Your task to perform on an android device: turn on data saver in the chrome app Image 0: 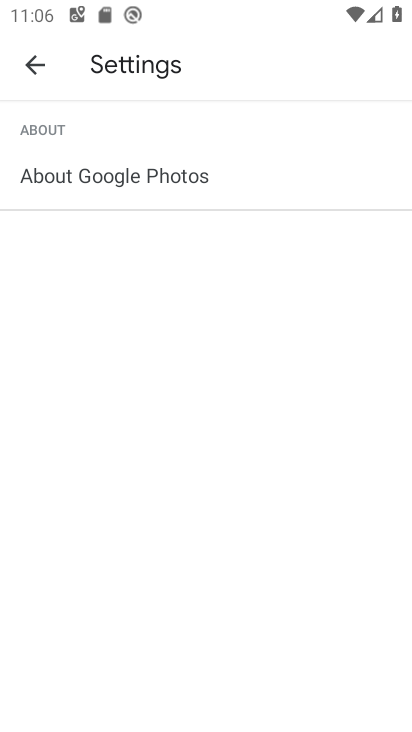
Step 0: press home button
Your task to perform on an android device: turn on data saver in the chrome app Image 1: 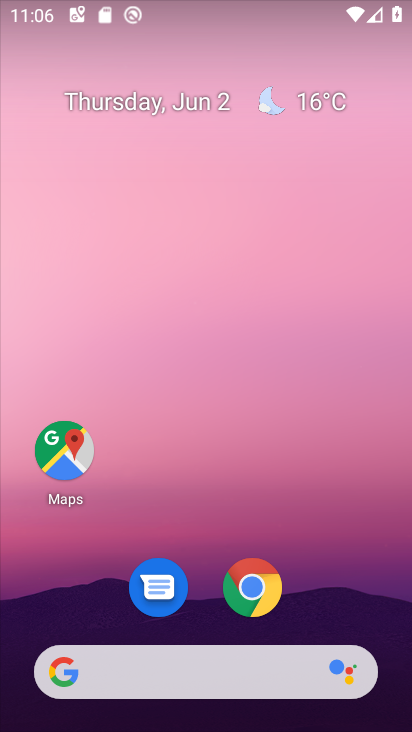
Step 1: click (262, 586)
Your task to perform on an android device: turn on data saver in the chrome app Image 2: 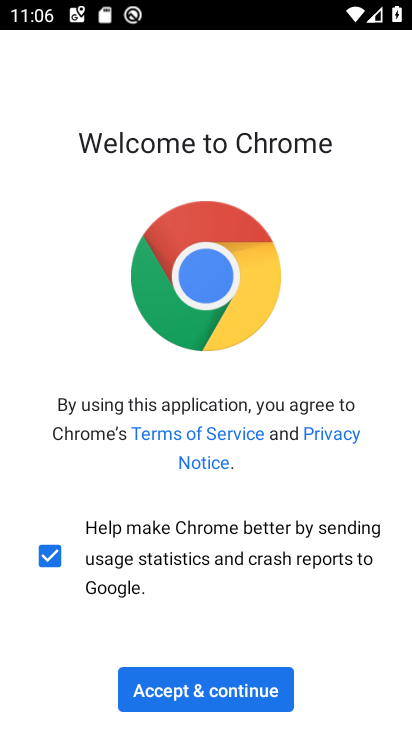
Step 2: click (256, 683)
Your task to perform on an android device: turn on data saver in the chrome app Image 3: 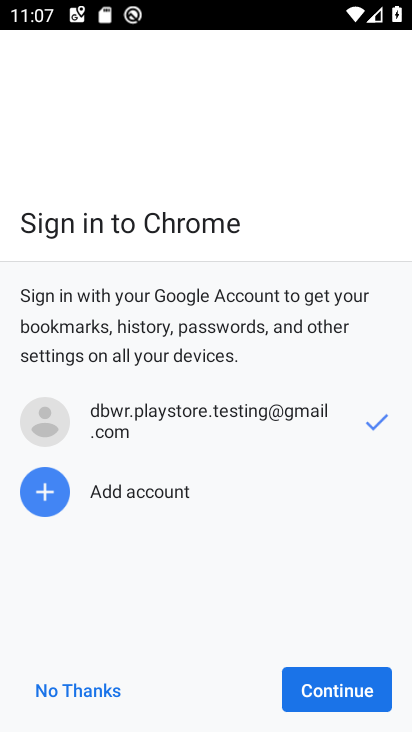
Step 3: click (305, 683)
Your task to perform on an android device: turn on data saver in the chrome app Image 4: 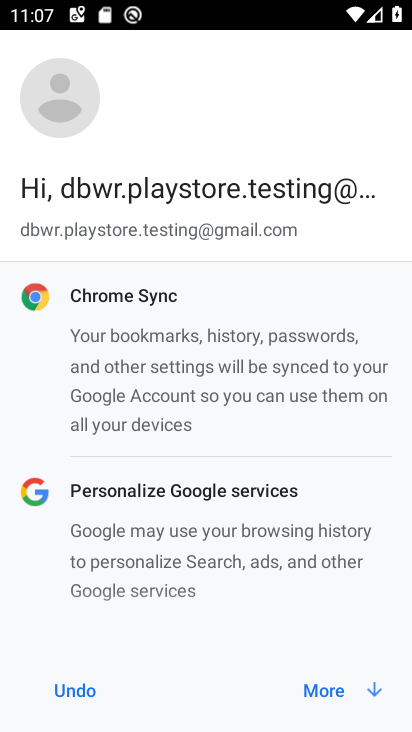
Step 4: click (320, 691)
Your task to perform on an android device: turn on data saver in the chrome app Image 5: 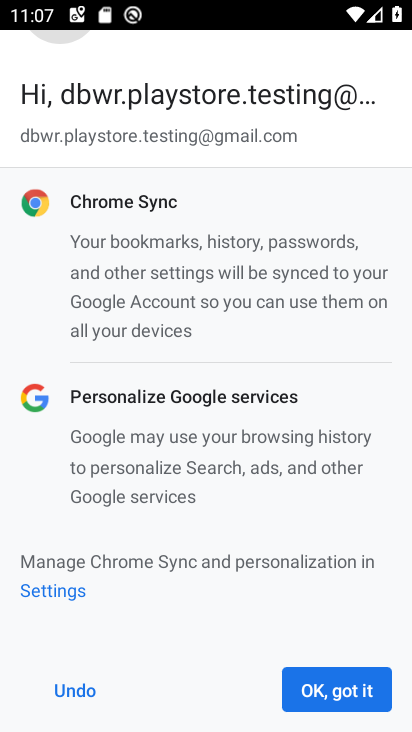
Step 5: click (320, 691)
Your task to perform on an android device: turn on data saver in the chrome app Image 6: 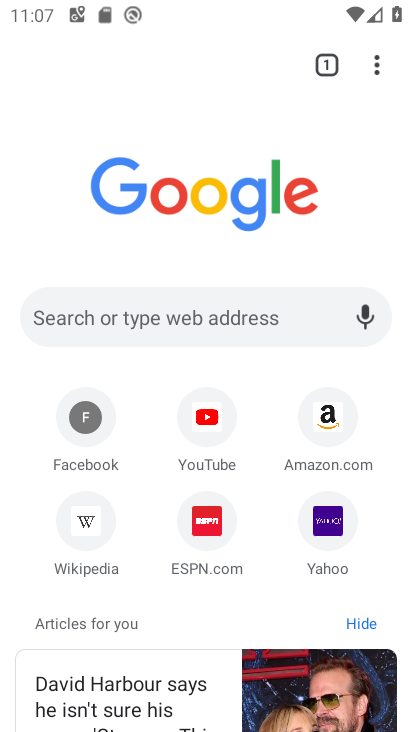
Step 6: click (378, 63)
Your task to perform on an android device: turn on data saver in the chrome app Image 7: 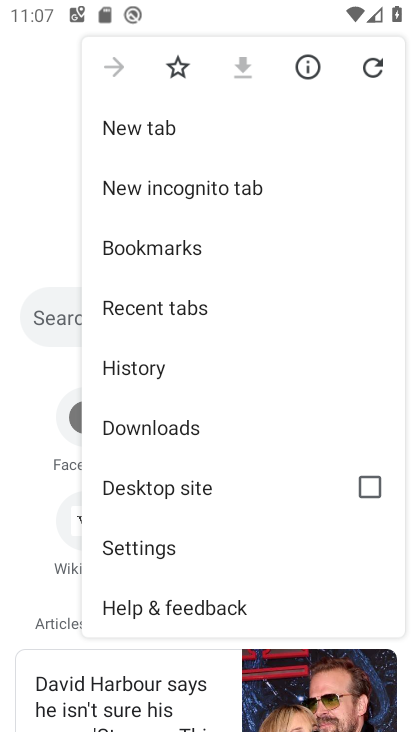
Step 7: click (195, 548)
Your task to perform on an android device: turn on data saver in the chrome app Image 8: 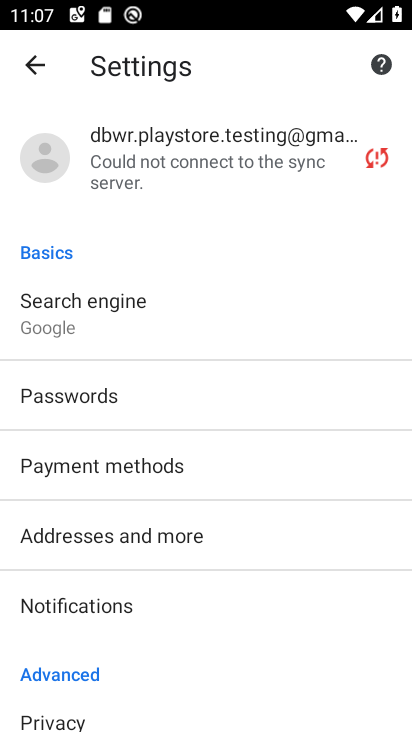
Step 8: drag from (243, 622) to (272, 337)
Your task to perform on an android device: turn on data saver in the chrome app Image 9: 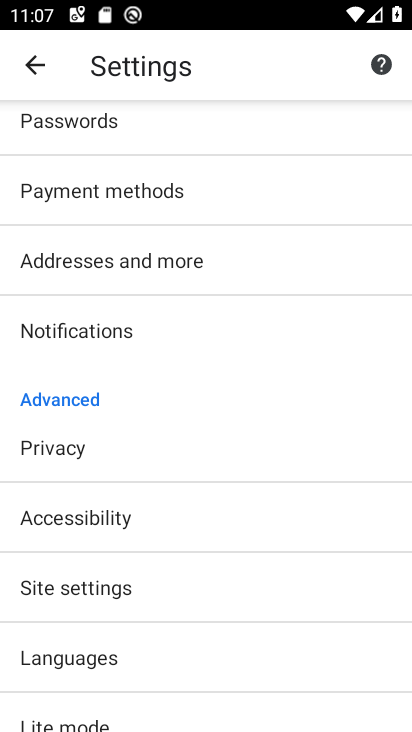
Step 9: drag from (237, 572) to (221, 298)
Your task to perform on an android device: turn on data saver in the chrome app Image 10: 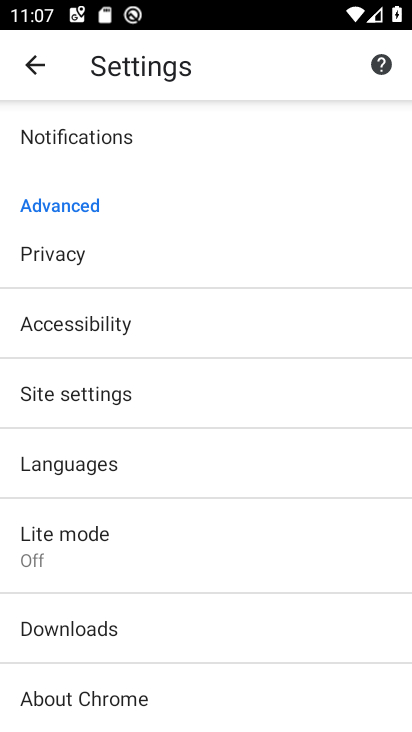
Step 10: click (207, 546)
Your task to perform on an android device: turn on data saver in the chrome app Image 11: 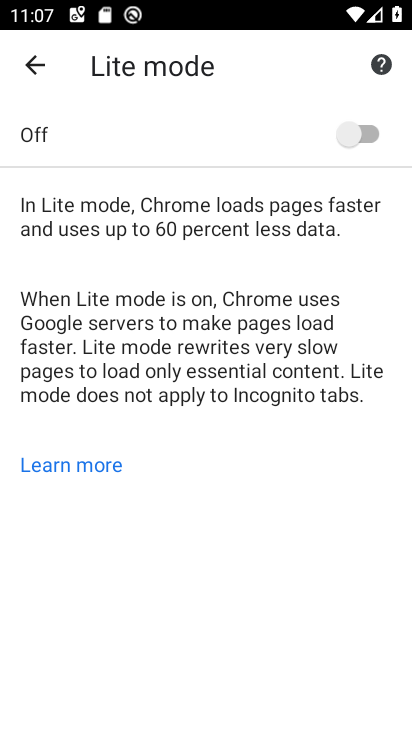
Step 11: click (354, 130)
Your task to perform on an android device: turn on data saver in the chrome app Image 12: 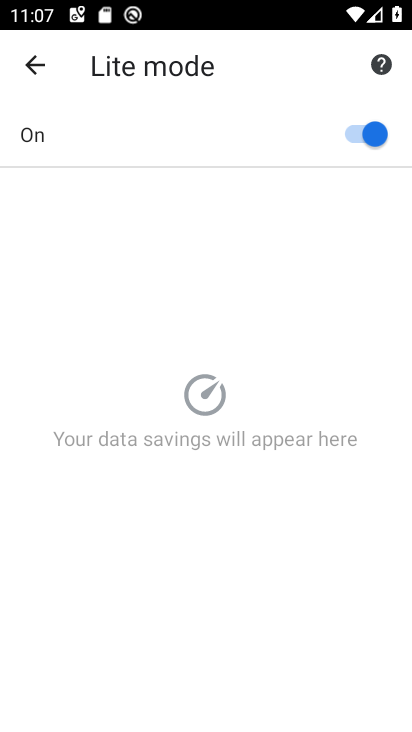
Step 12: task complete